Your task to perform on an android device: see creations saved in the google photos Image 0: 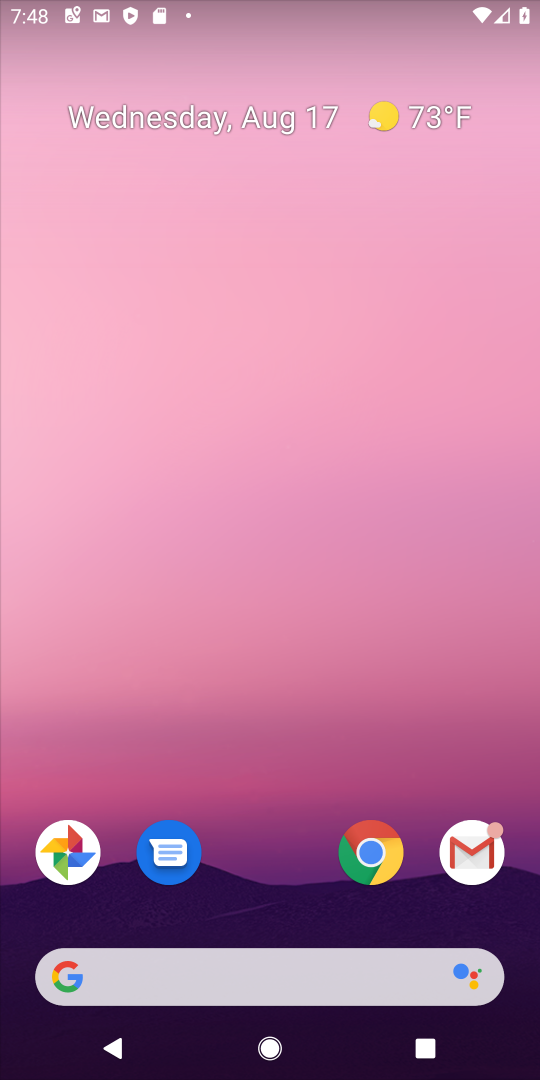
Step 0: click (72, 863)
Your task to perform on an android device: see creations saved in the google photos Image 1: 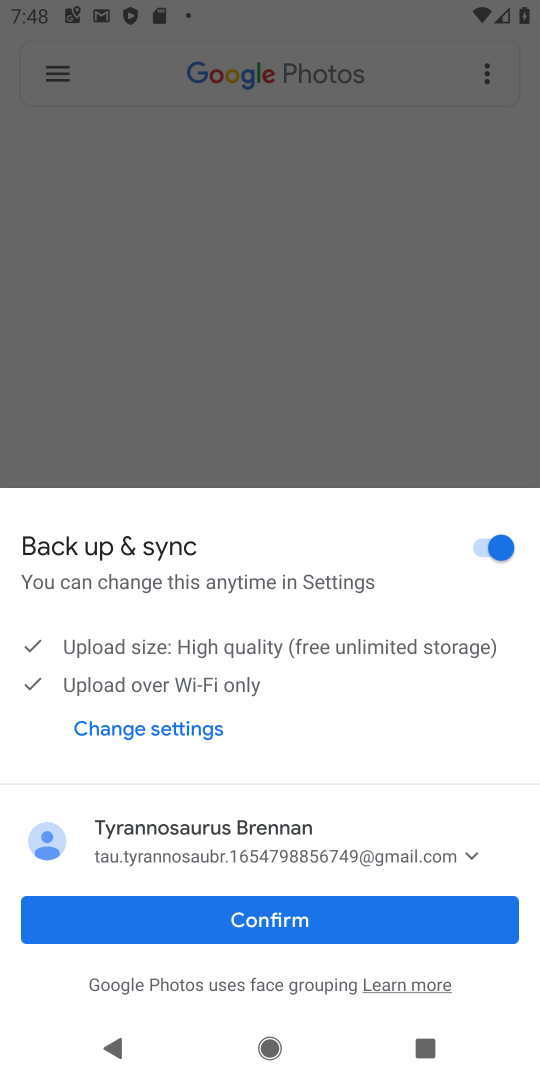
Step 1: click (279, 909)
Your task to perform on an android device: see creations saved in the google photos Image 2: 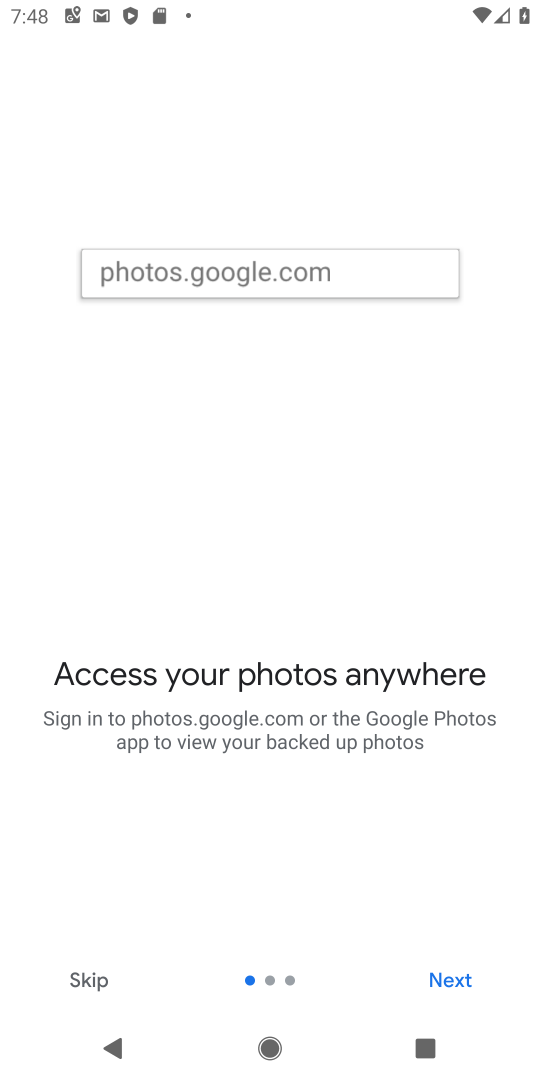
Step 2: click (451, 969)
Your task to perform on an android device: see creations saved in the google photos Image 3: 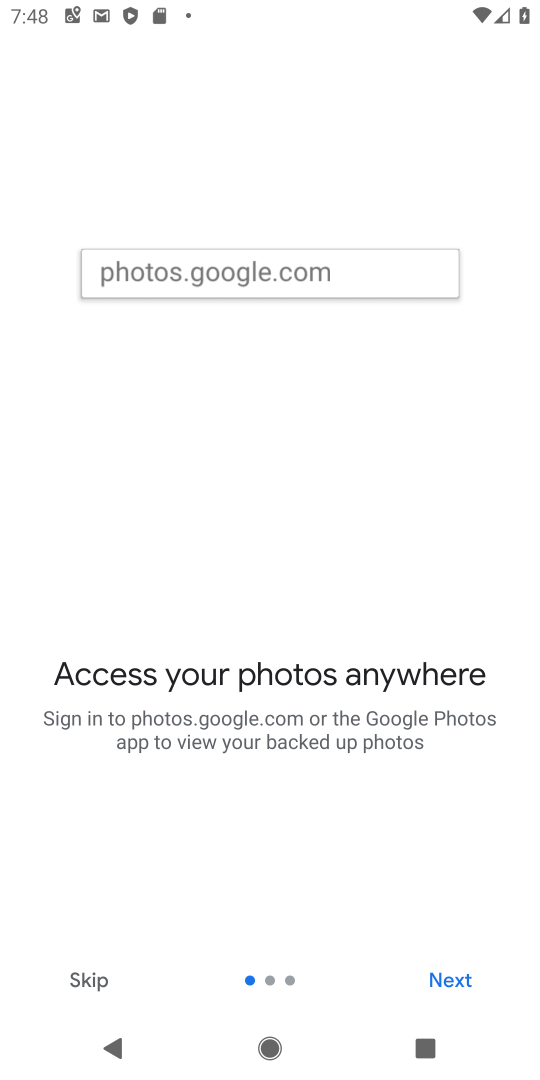
Step 3: click (451, 969)
Your task to perform on an android device: see creations saved in the google photos Image 4: 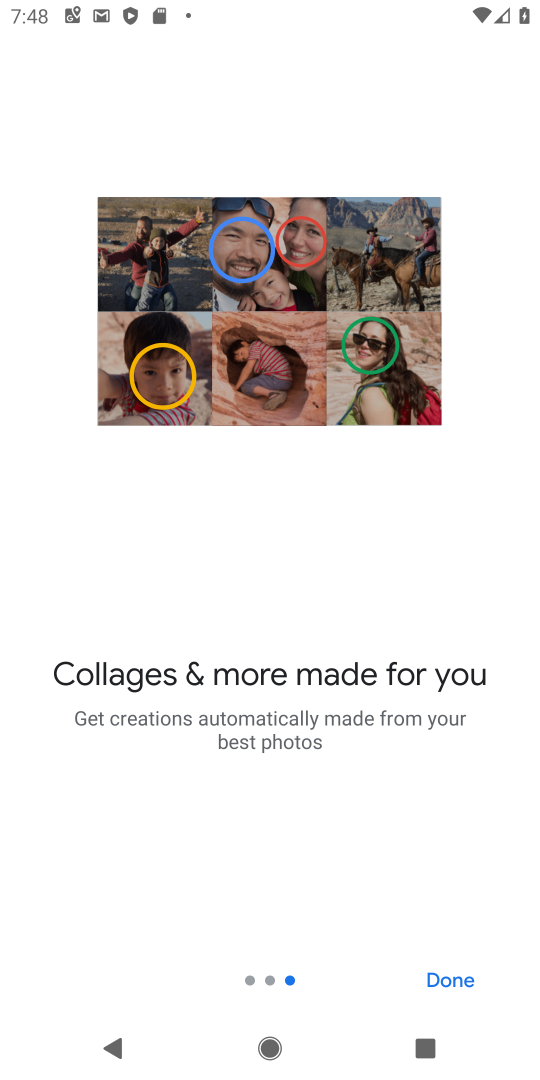
Step 4: click (451, 969)
Your task to perform on an android device: see creations saved in the google photos Image 5: 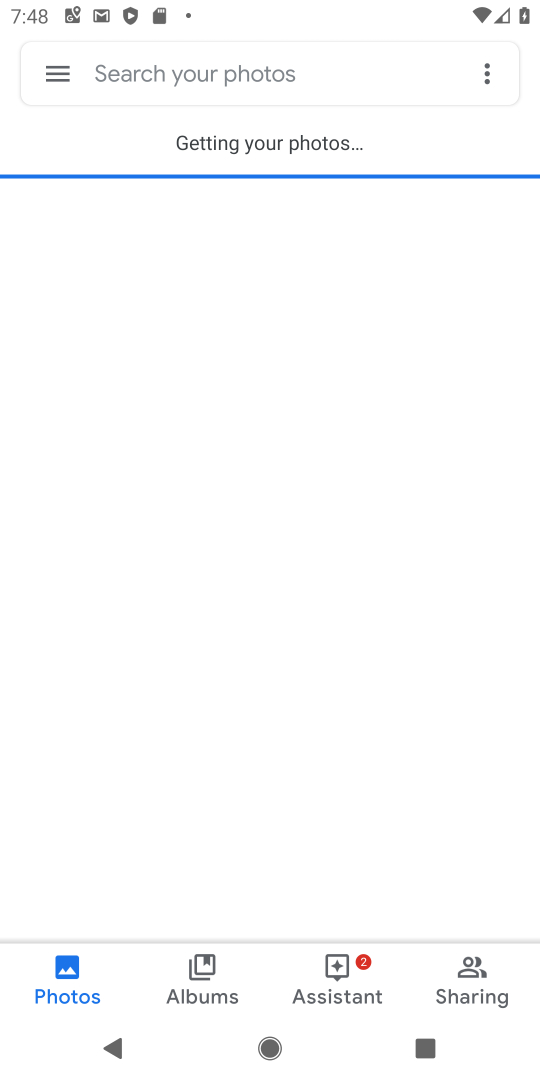
Step 5: click (113, 69)
Your task to perform on an android device: see creations saved in the google photos Image 6: 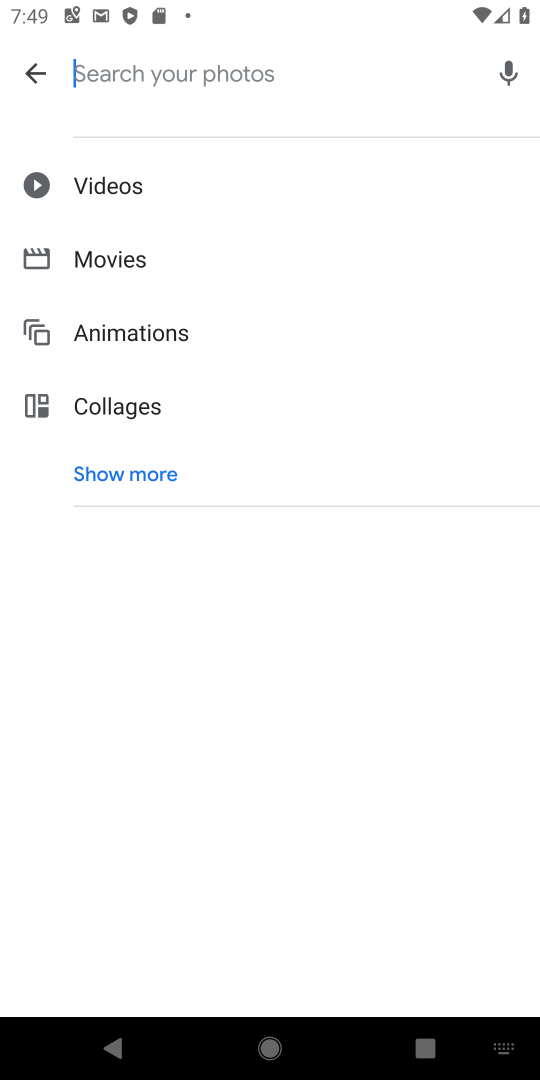
Step 6: click (109, 466)
Your task to perform on an android device: see creations saved in the google photos Image 7: 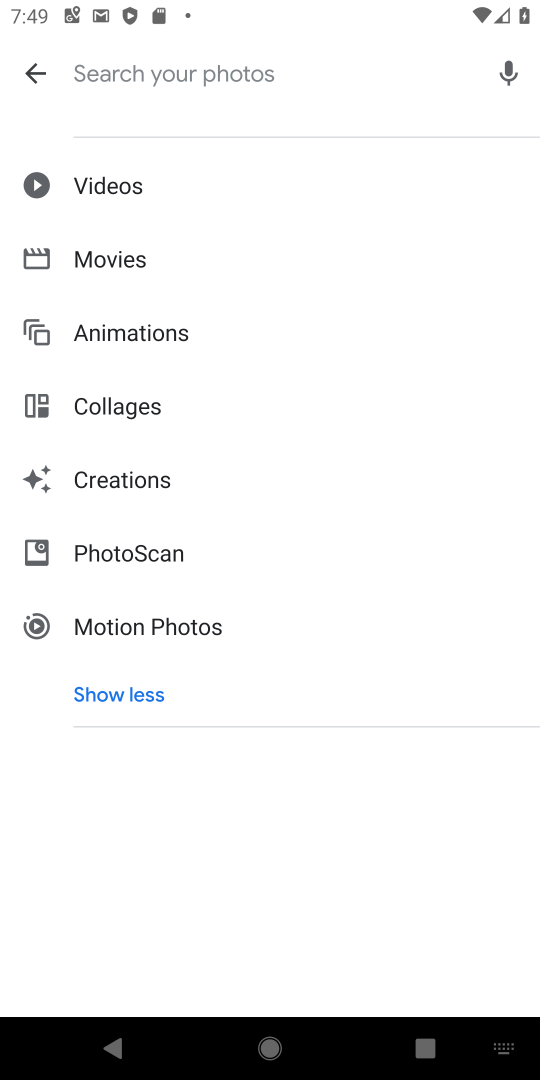
Step 7: click (110, 474)
Your task to perform on an android device: see creations saved in the google photos Image 8: 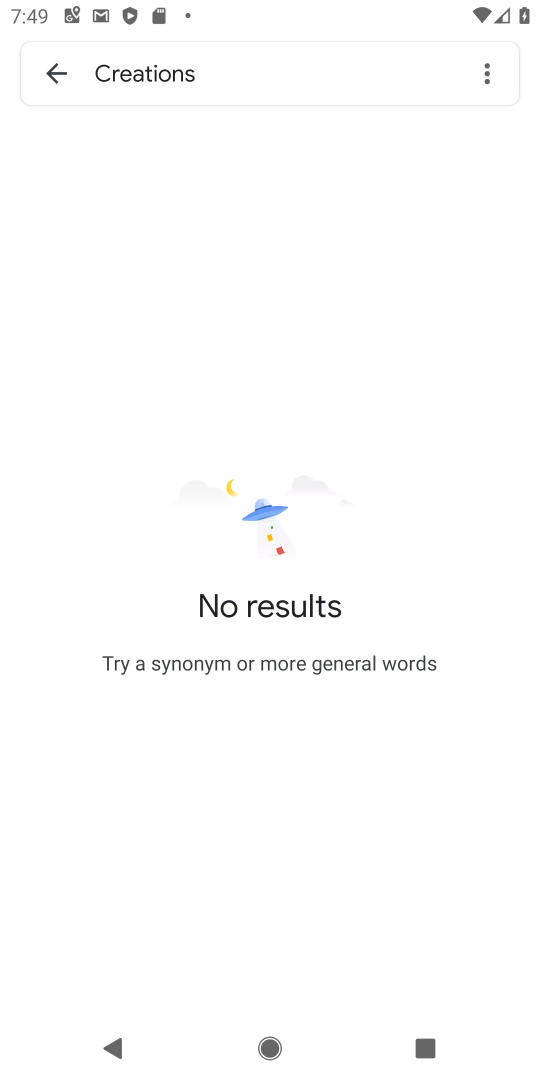
Step 8: task complete